Your task to perform on an android device: Check the weather Image 0: 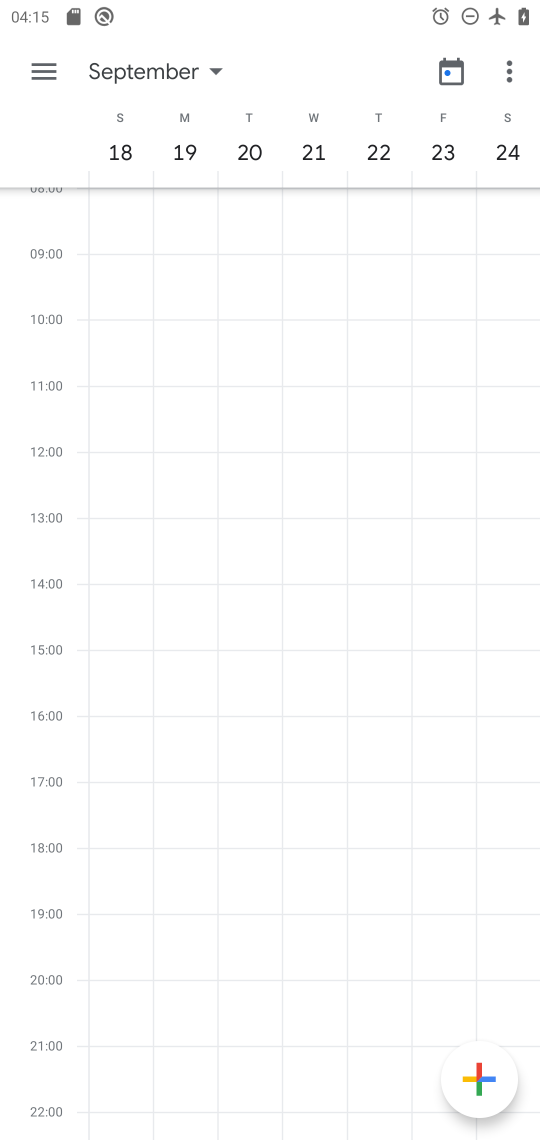
Step 0: press home button
Your task to perform on an android device: Check the weather Image 1: 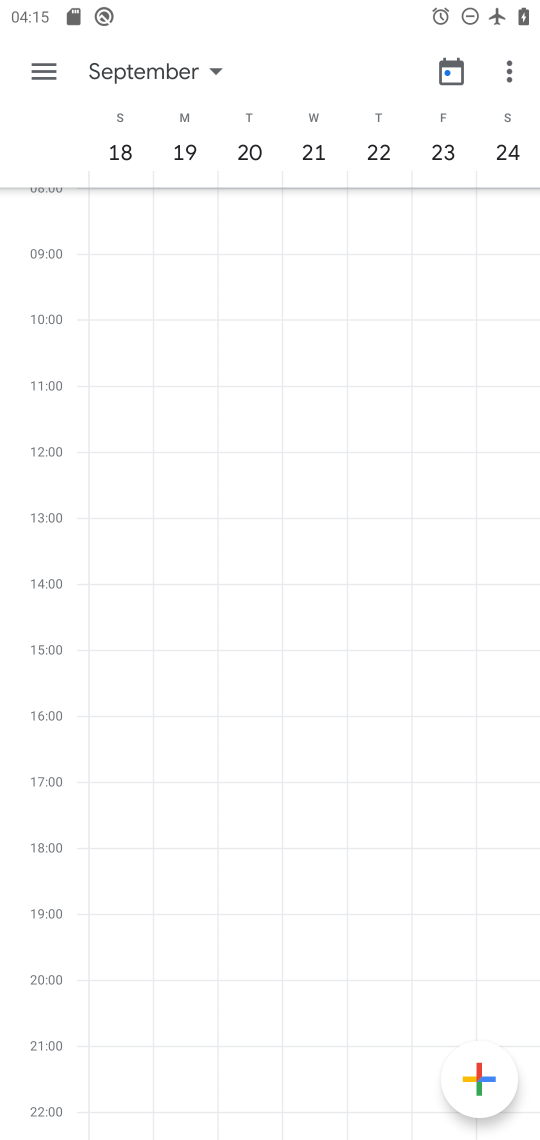
Step 1: press home button
Your task to perform on an android device: Check the weather Image 2: 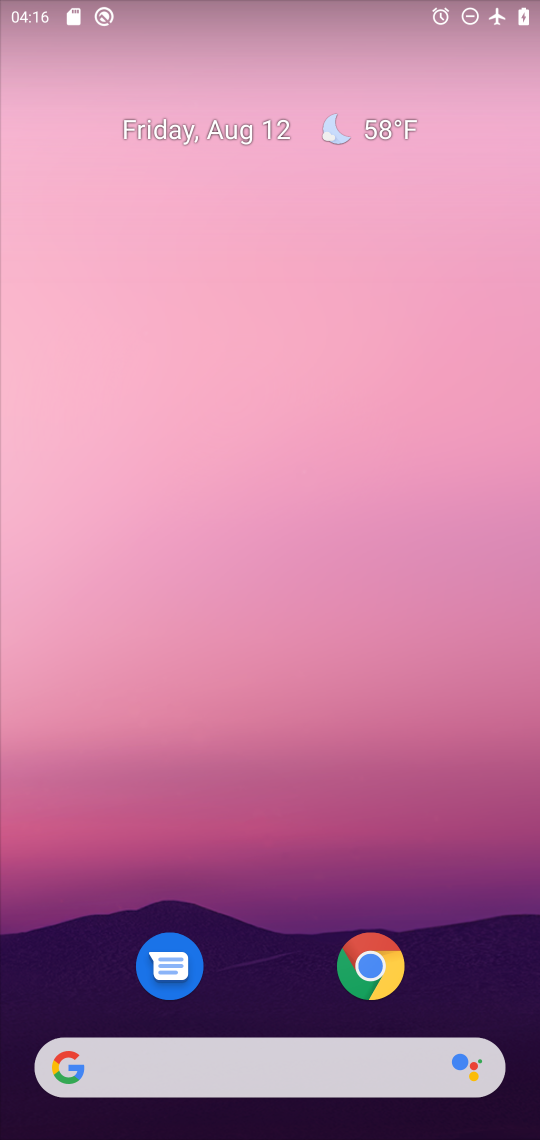
Step 2: click (387, 130)
Your task to perform on an android device: Check the weather Image 3: 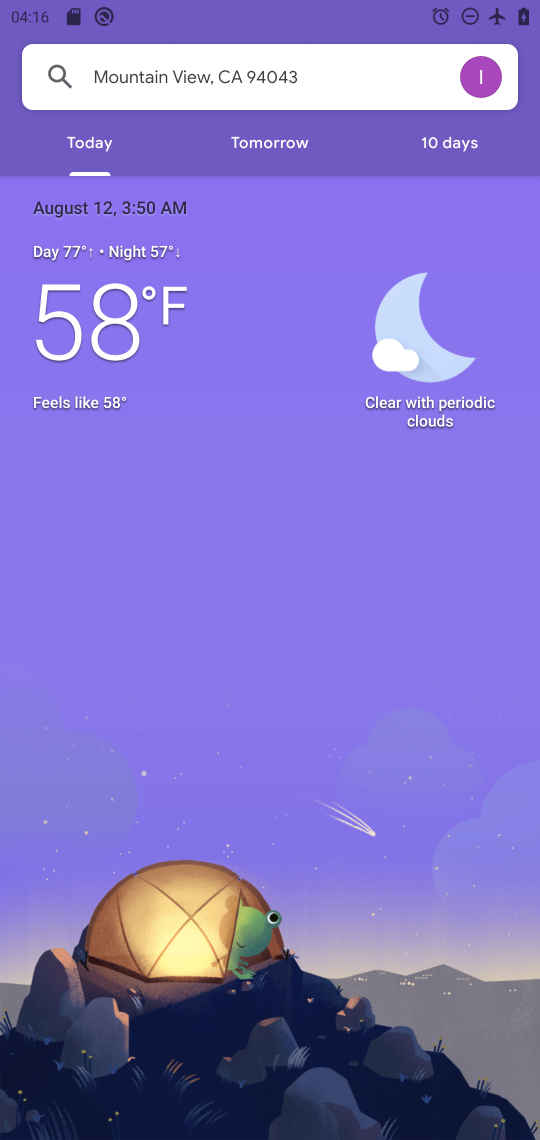
Step 3: task complete